Your task to perform on an android device: uninstall "NewsBreak: Local News & Alerts" Image 0: 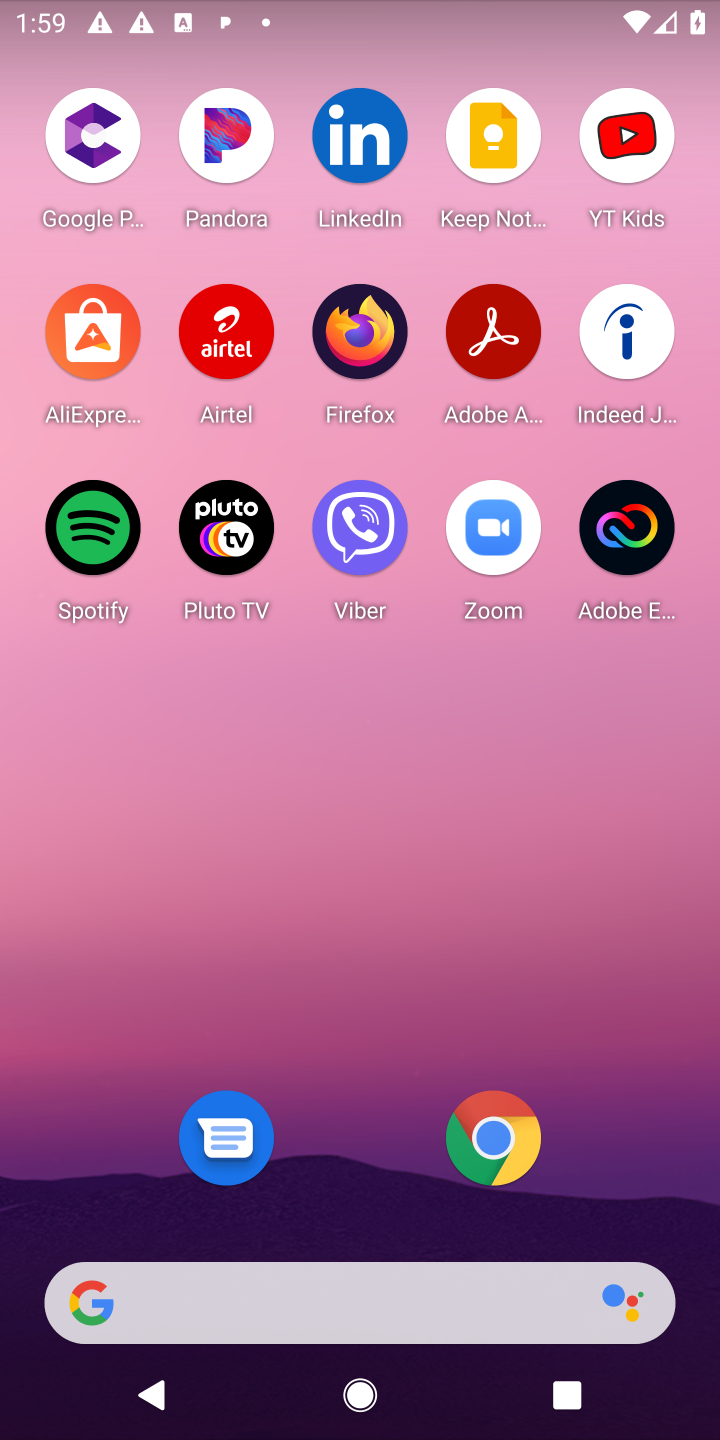
Step 0: press home button
Your task to perform on an android device: uninstall "NewsBreak: Local News & Alerts" Image 1: 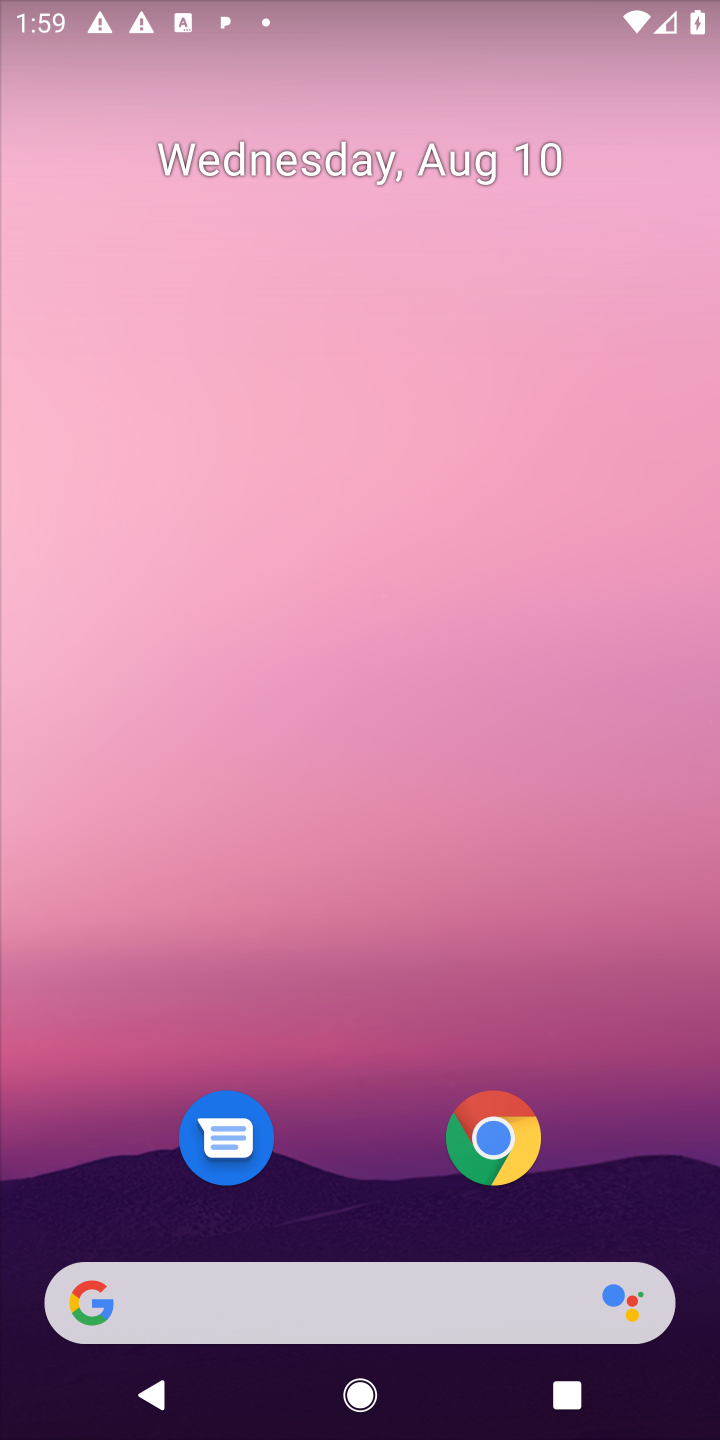
Step 1: drag from (600, 1165) to (635, 66)
Your task to perform on an android device: uninstall "NewsBreak: Local News & Alerts" Image 2: 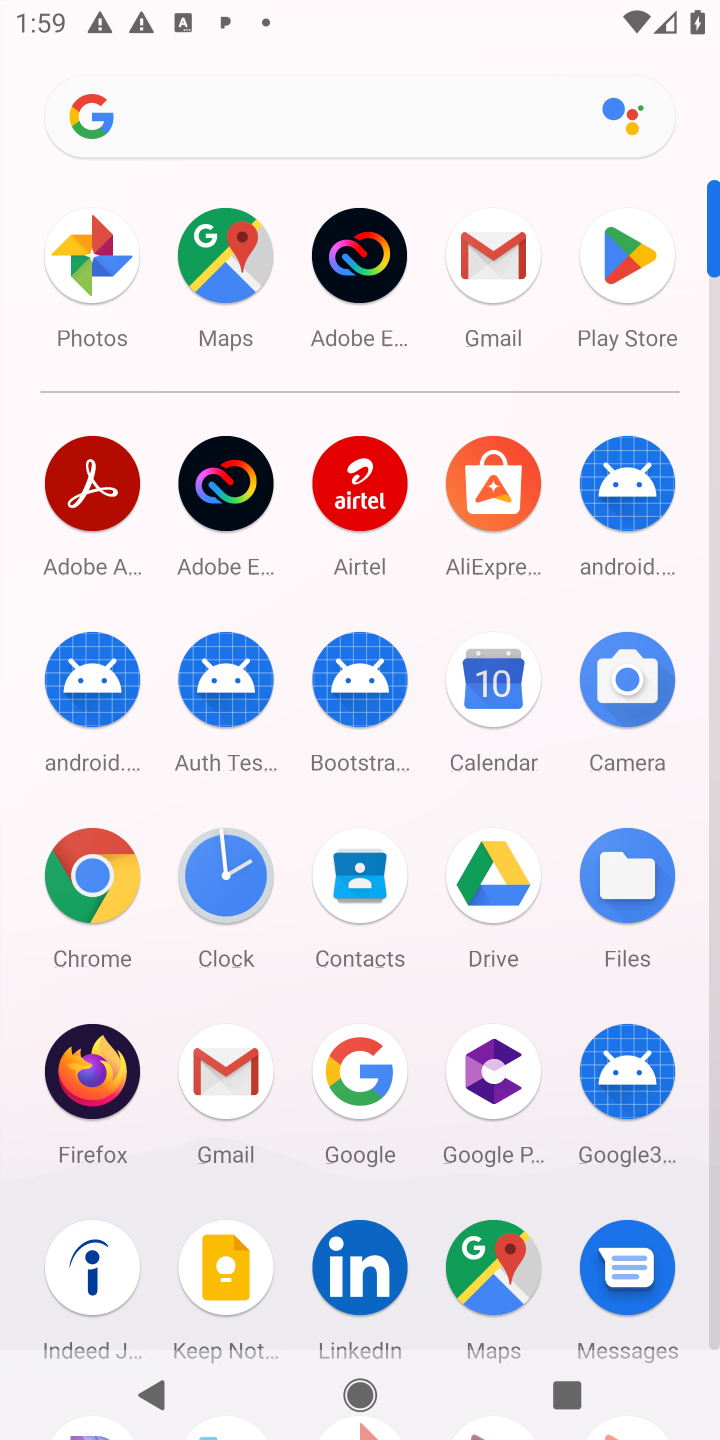
Step 2: click (631, 254)
Your task to perform on an android device: uninstall "NewsBreak: Local News & Alerts" Image 3: 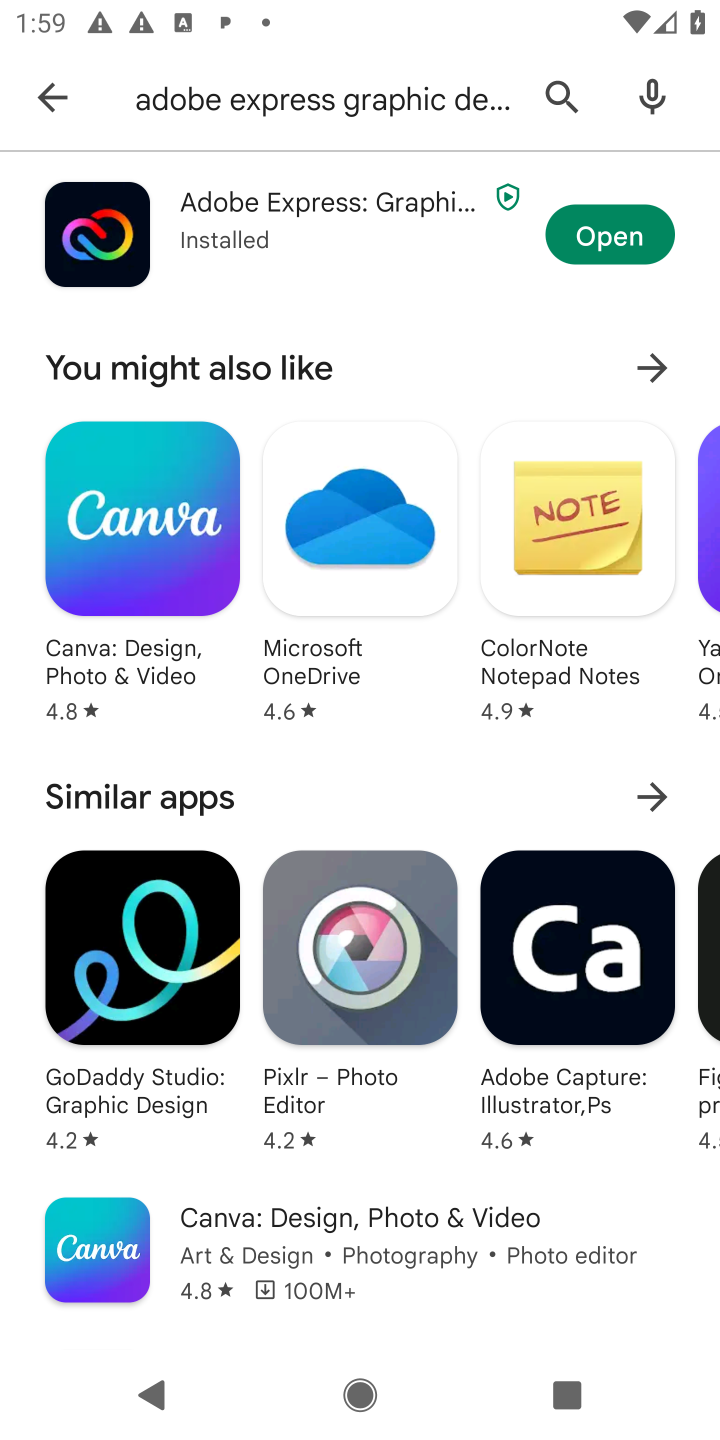
Step 3: click (560, 84)
Your task to perform on an android device: uninstall "NewsBreak: Local News & Alerts" Image 4: 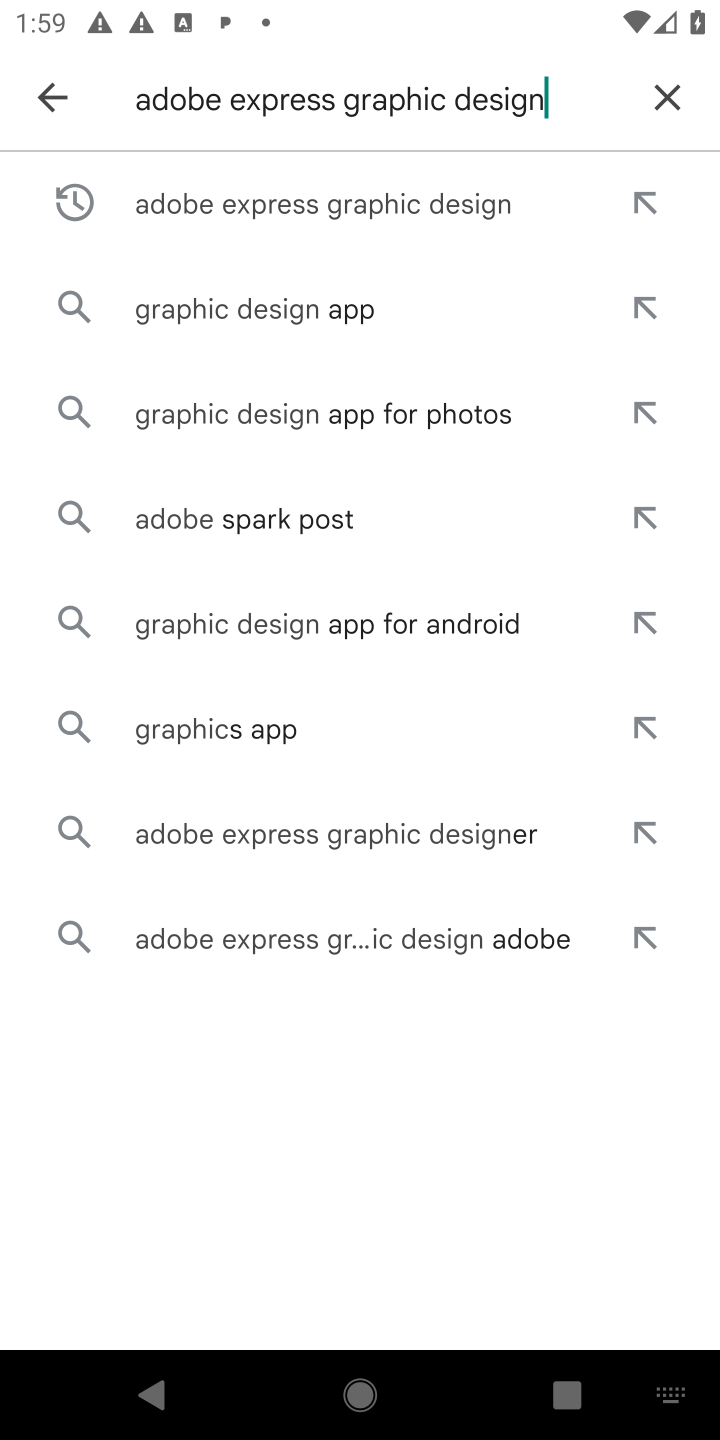
Step 4: click (667, 83)
Your task to perform on an android device: uninstall "NewsBreak: Local News & Alerts" Image 5: 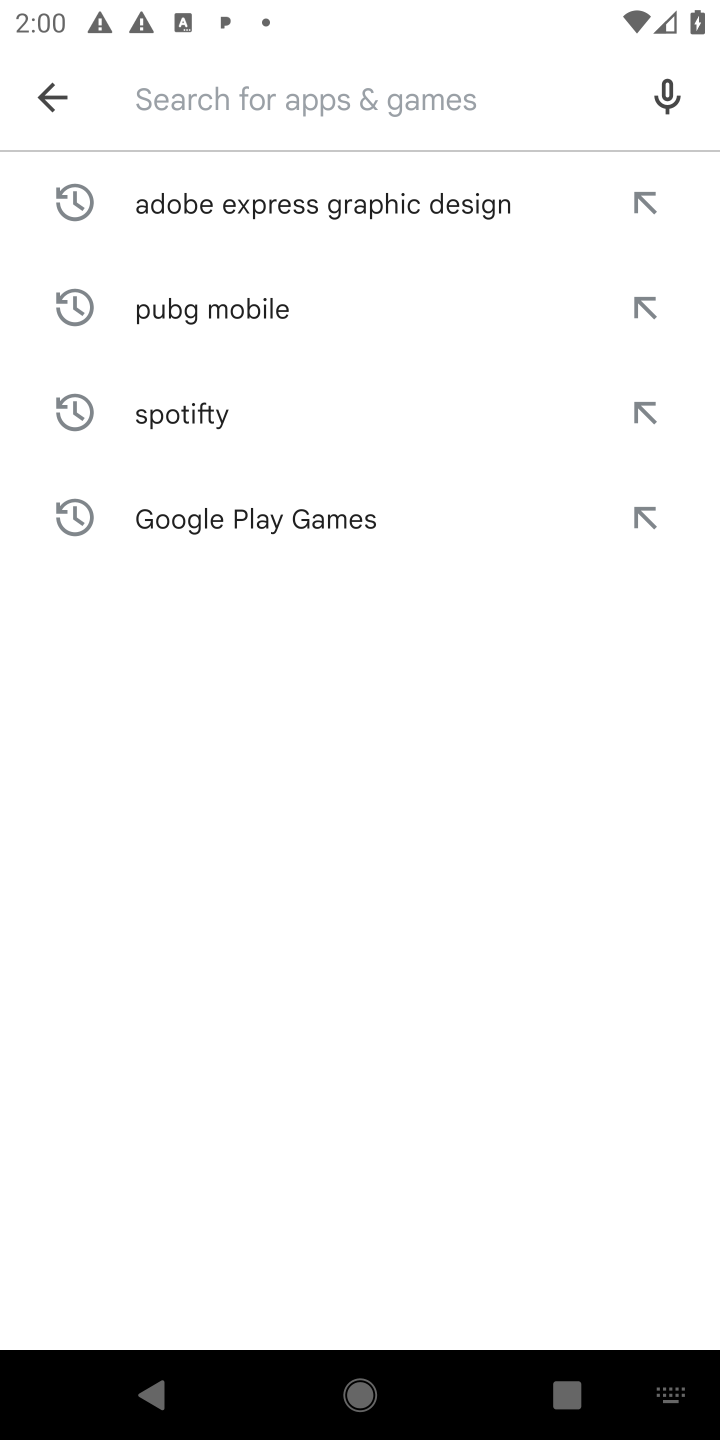
Step 5: press enter
Your task to perform on an android device: uninstall "NewsBreak: Local News & Alerts" Image 6: 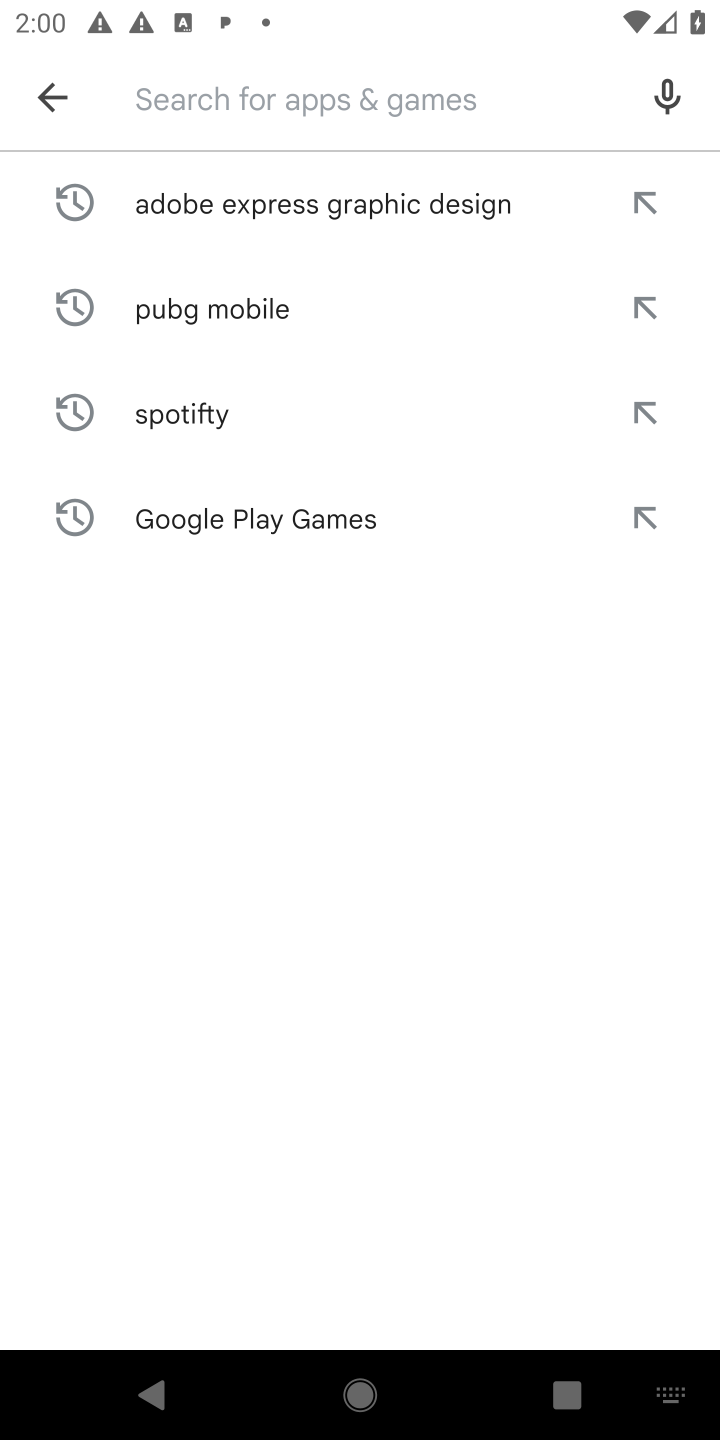
Step 6: type "NewsBreak: Local News & Alerts"
Your task to perform on an android device: uninstall "NewsBreak: Local News & Alerts" Image 7: 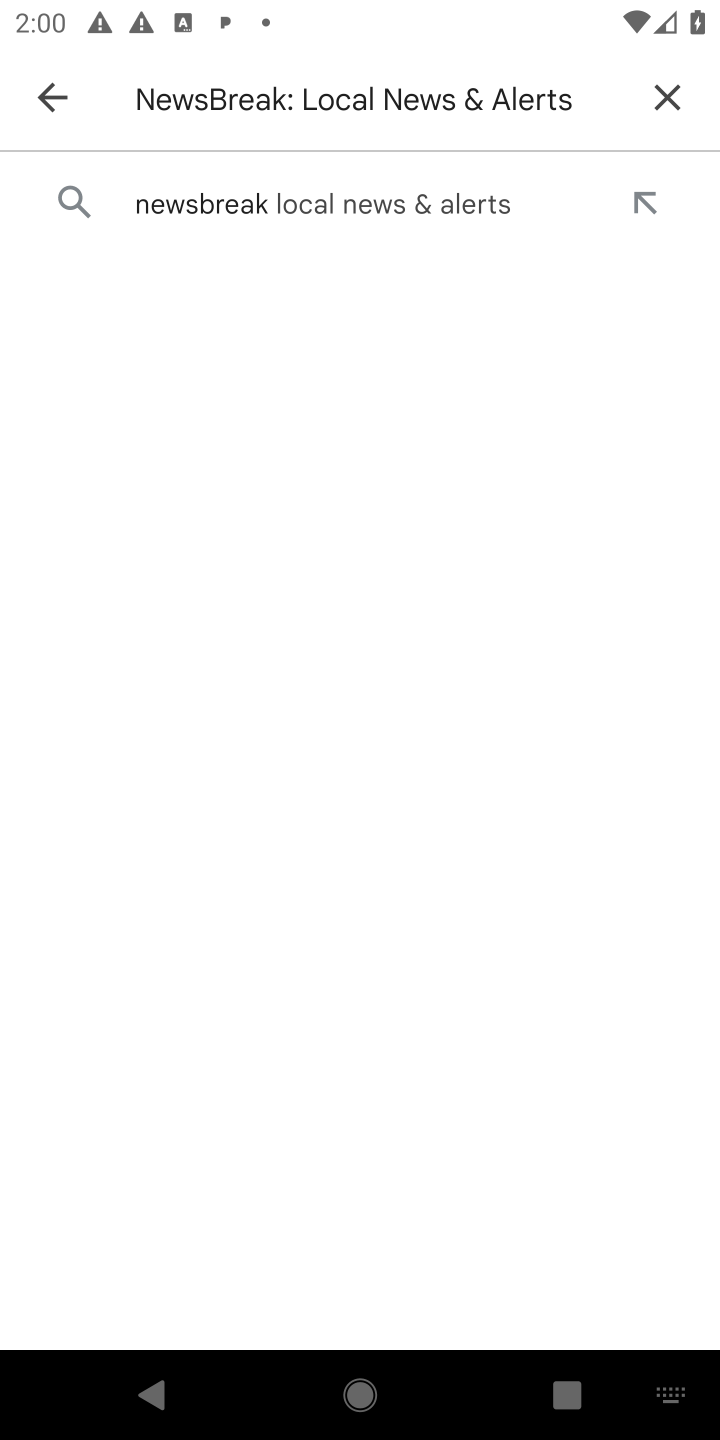
Step 7: click (378, 199)
Your task to perform on an android device: uninstall "NewsBreak: Local News & Alerts" Image 8: 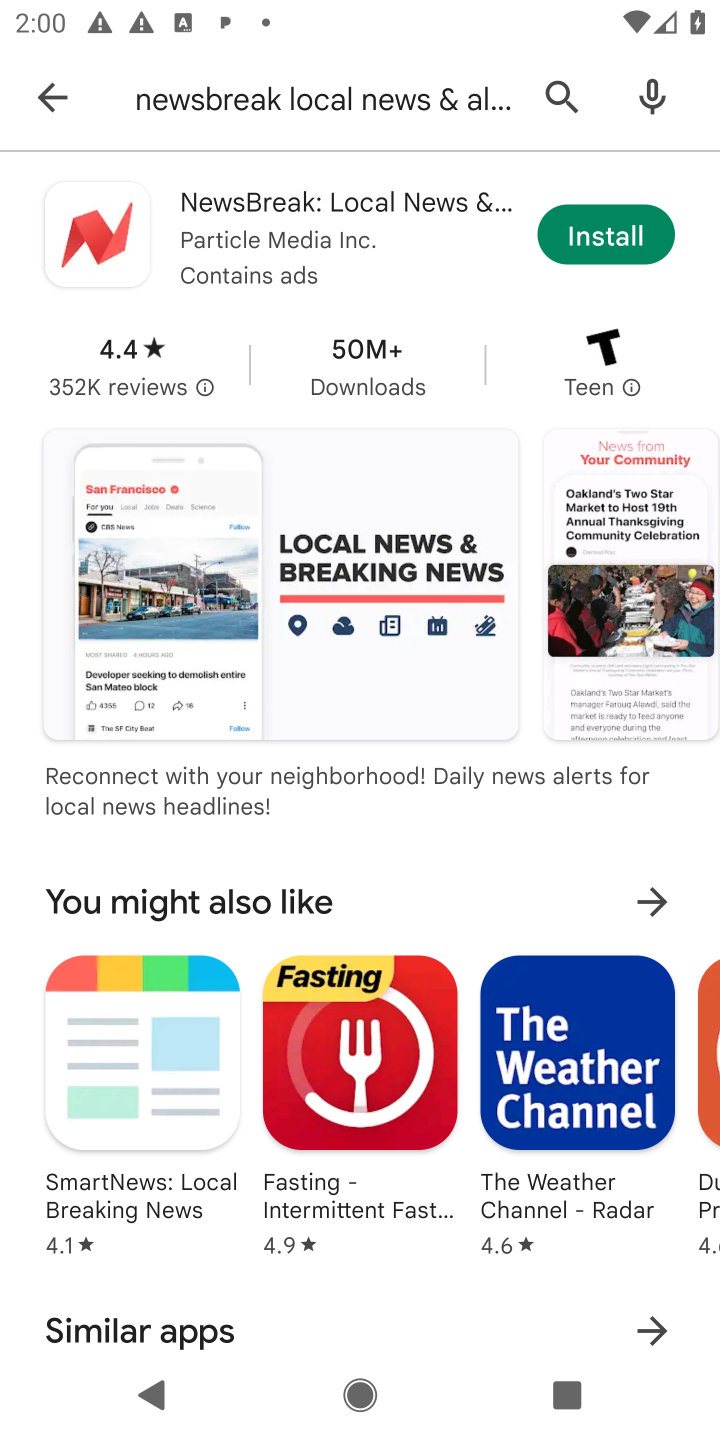
Step 8: task complete